Your task to perform on an android device: check storage Image 0: 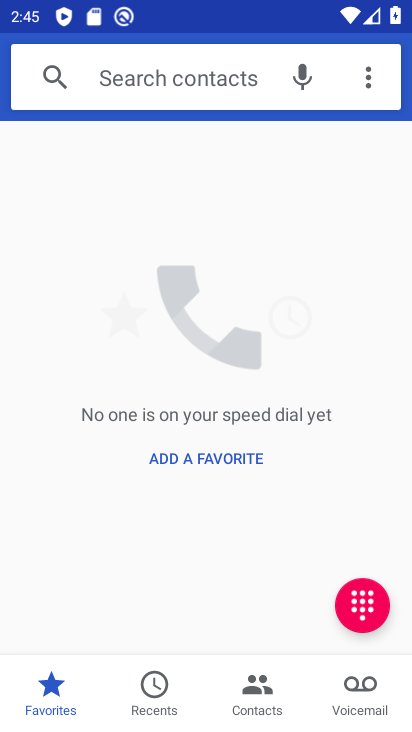
Step 0: press home button
Your task to perform on an android device: check storage Image 1: 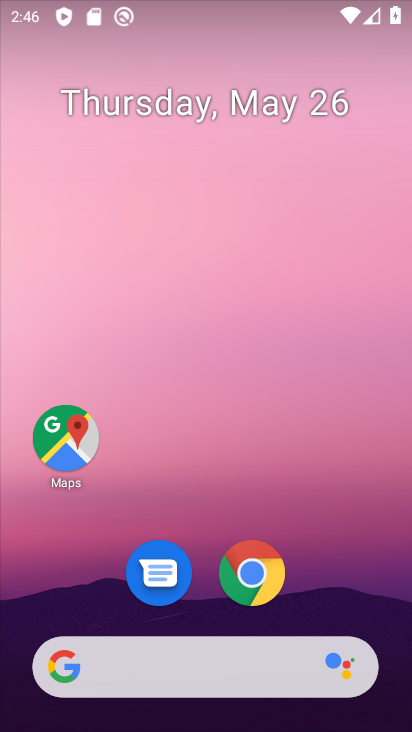
Step 1: drag from (211, 685) to (197, 119)
Your task to perform on an android device: check storage Image 2: 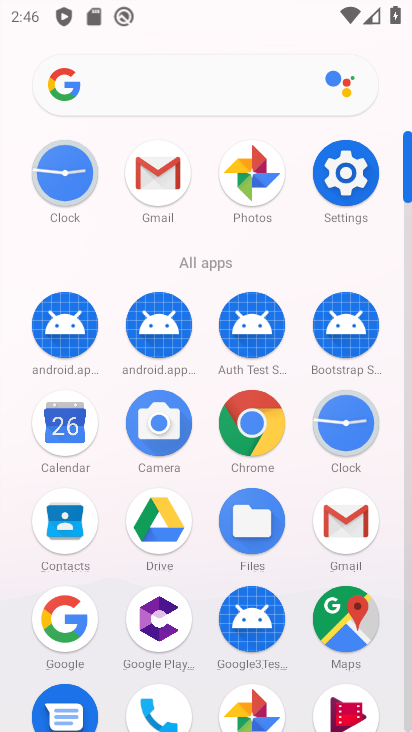
Step 2: click (339, 154)
Your task to perform on an android device: check storage Image 3: 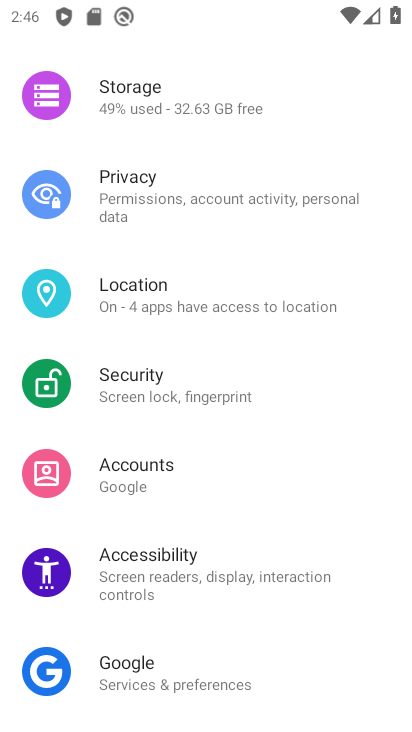
Step 3: click (145, 110)
Your task to perform on an android device: check storage Image 4: 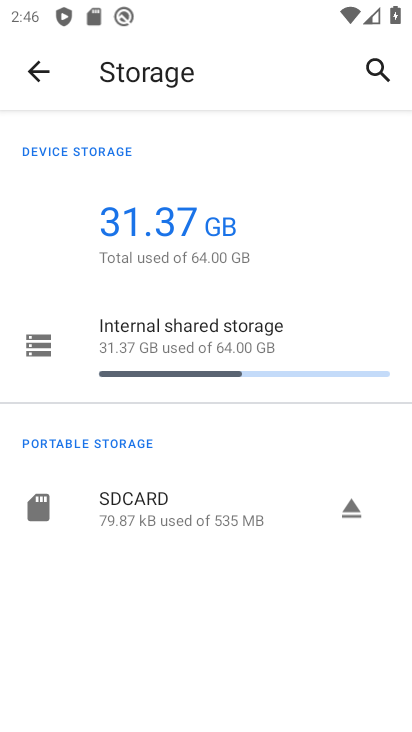
Step 4: click (157, 320)
Your task to perform on an android device: check storage Image 5: 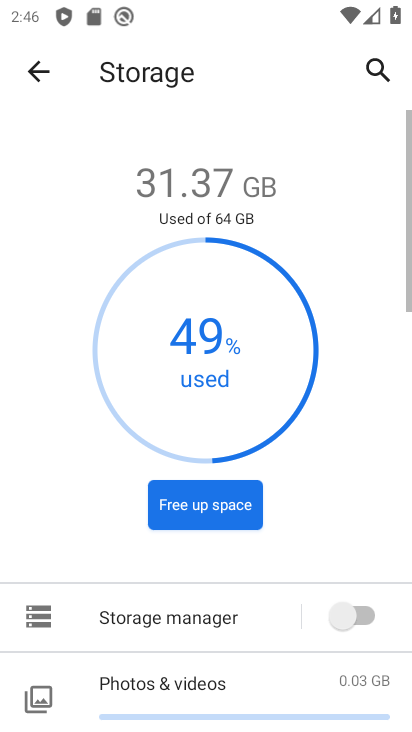
Step 5: task complete